Your task to perform on an android device: Search for Mexican restaurants on Maps Image 0: 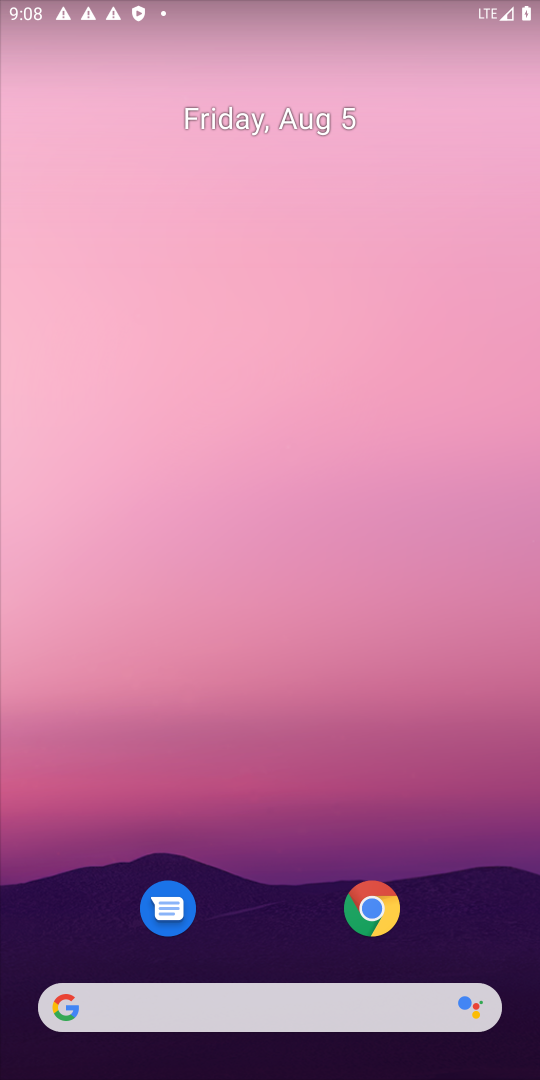
Step 0: drag from (270, 946) to (184, 163)
Your task to perform on an android device: Search for Mexican restaurants on Maps Image 1: 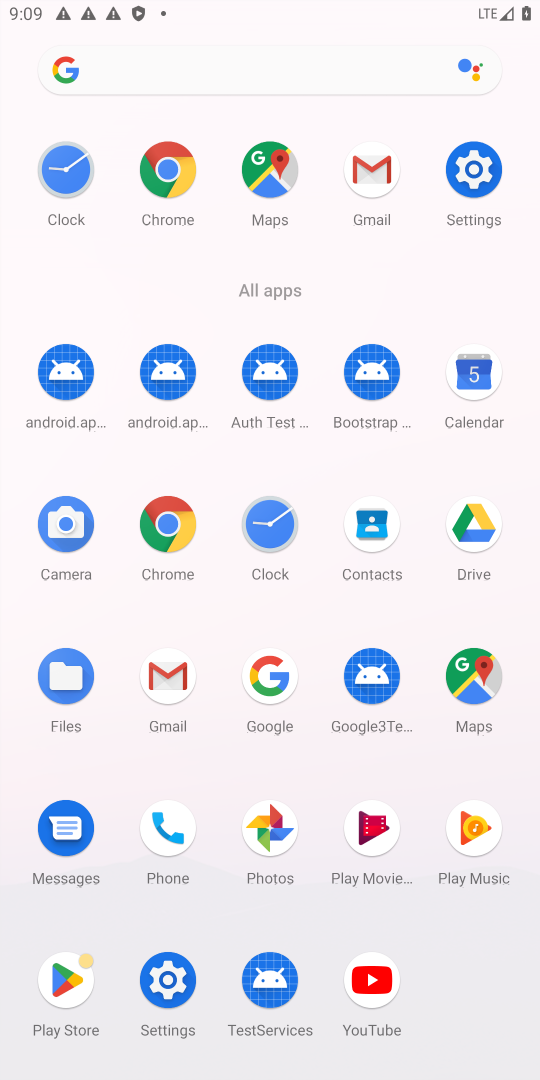
Step 1: click (274, 188)
Your task to perform on an android device: Search for Mexican restaurants on Maps Image 2: 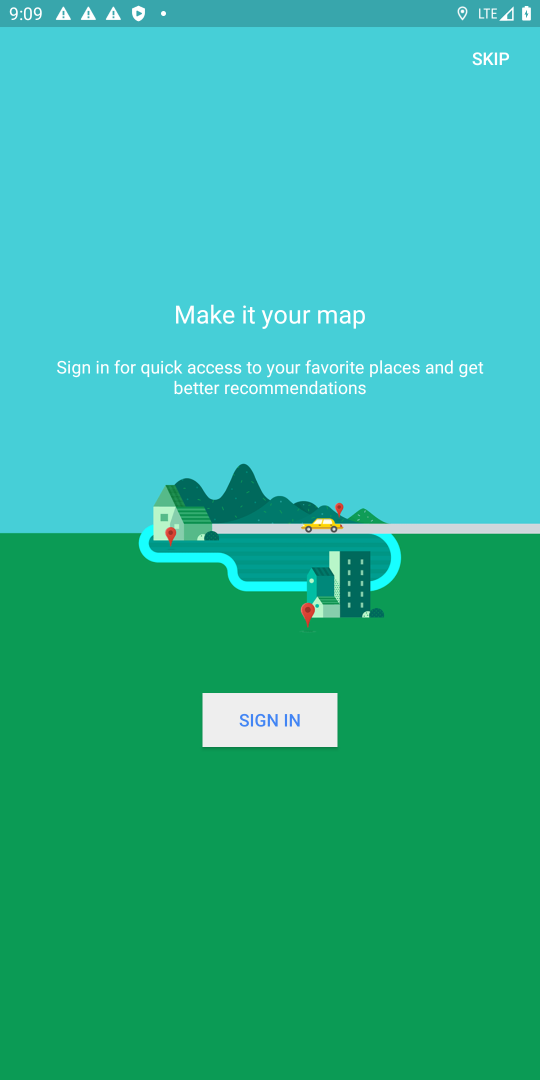
Step 2: task complete